Your task to perform on an android device: turn on priority inbox in the gmail app Image 0: 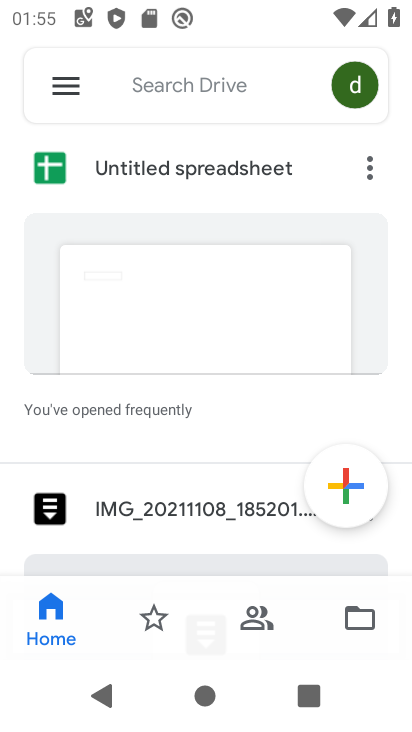
Step 0: press home button
Your task to perform on an android device: turn on priority inbox in the gmail app Image 1: 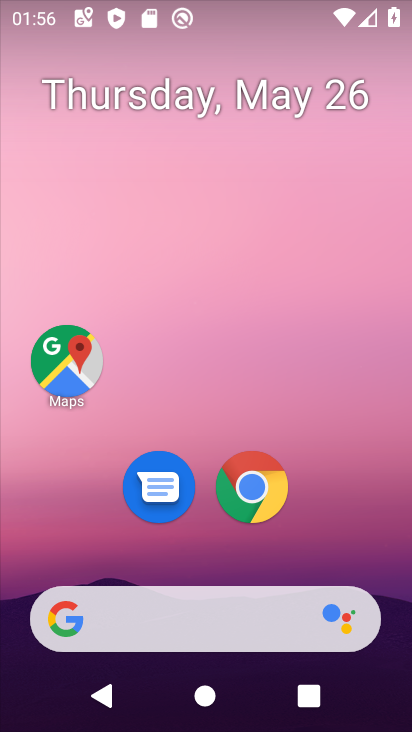
Step 1: drag from (213, 606) to (225, 113)
Your task to perform on an android device: turn on priority inbox in the gmail app Image 2: 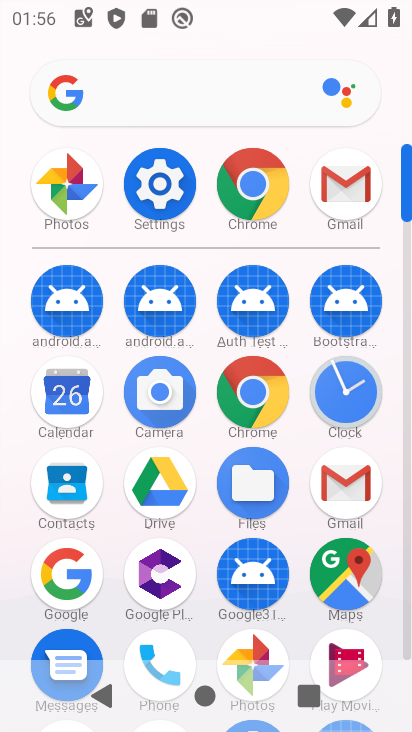
Step 2: click (325, 191)
Your task to perform on an android device: turn on priority inbox in the gmail app Image 3: 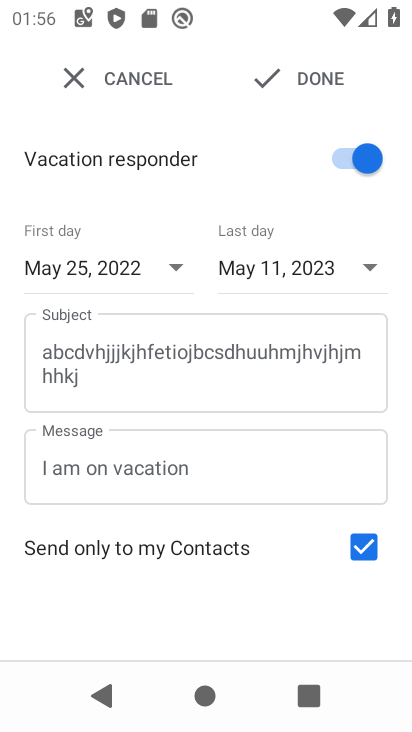
Step 3: click (268, 78)
Your task to perform on an android device: turn on priority inbox in the gmail app Image 4: 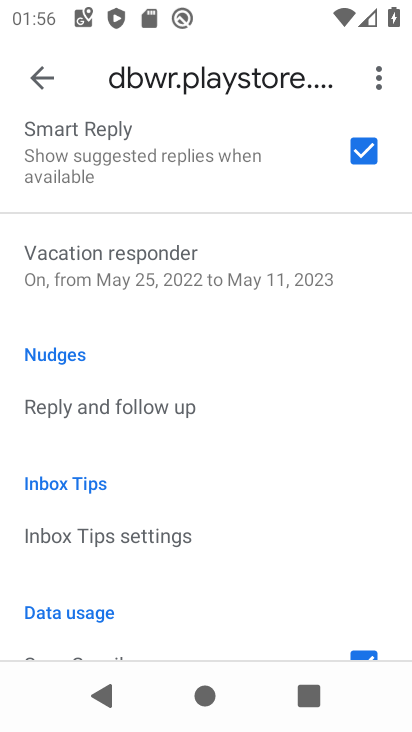
Step 4: drag from (192, 567) to (154, 114)
Your task to perform on an android device: turn on priority inbox in the gmail app Image 5: 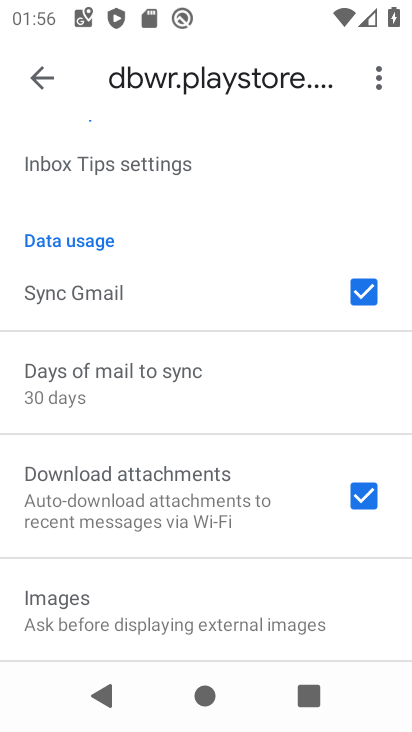
Step 5: drag from (112, 574) to (3, 194)
Your task to perform on an android device: turn on priority inbox in the gmail app Image 6: 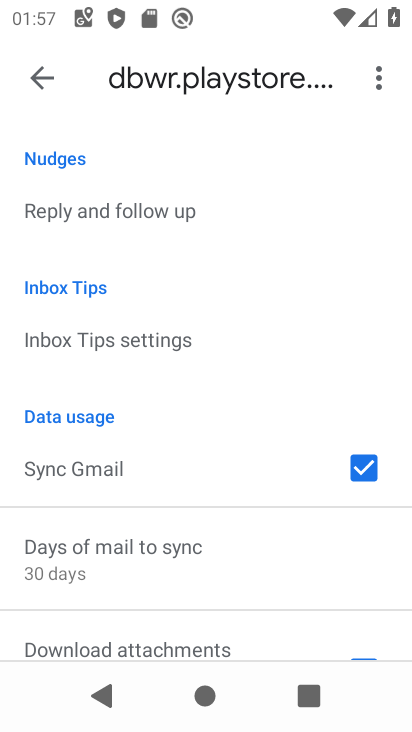
Step 6: drag from (156, 509) to (125, 68)
Your task to perform on an android device: turn on priority inbox in the gmail app Image 7: 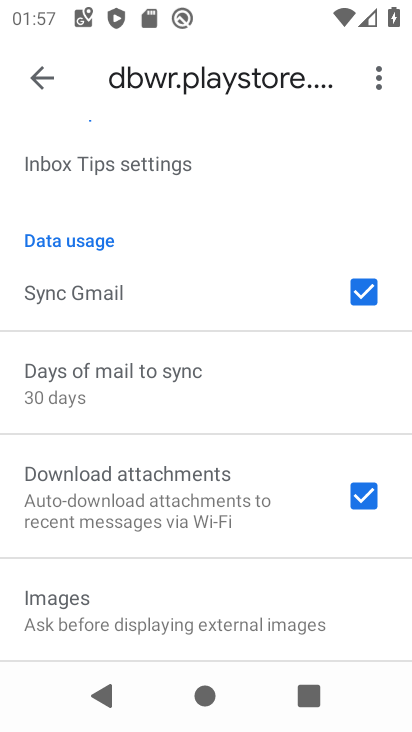
Step 7: drag from (183, 214) to (194, 725)
Your task to perform on an android device: turn on priority inbox in the gmail app Image 8: 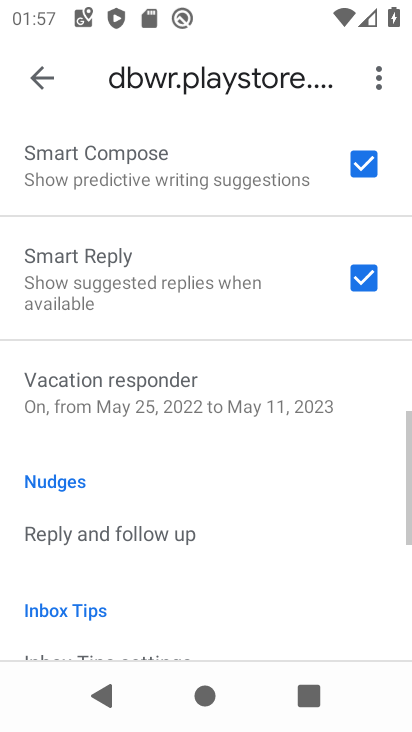
Step 8: drag from (129, 232) to (28, 596)
Your task to perform on an android device: turn on priority inbox in the gmail app Image 9: 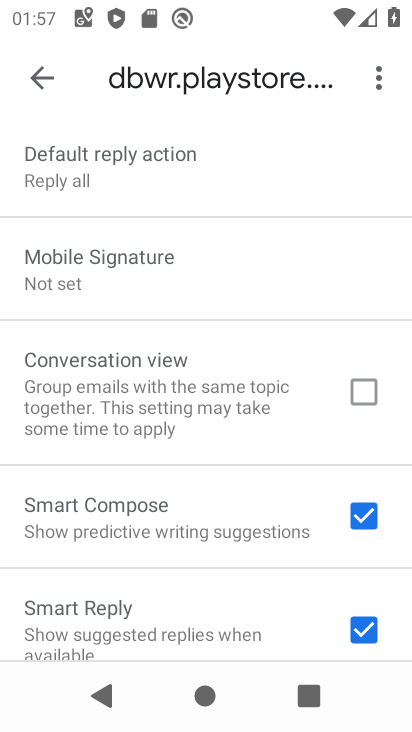
Step 9: drag from (119, 259) to (58, 684)
Your task to perform on an android device: turn on priority inbox in the gmail app Image 10: 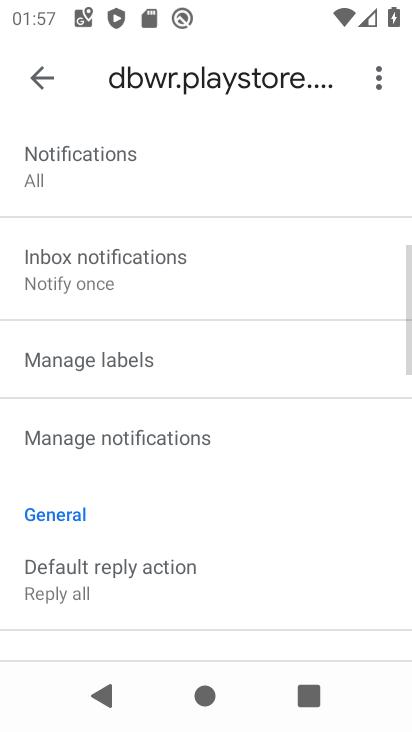
Step 10: drag from (147, 223) to (162, 723)
Your task to perform on an android device: turn on priority inbox in the gmail app Image 11: 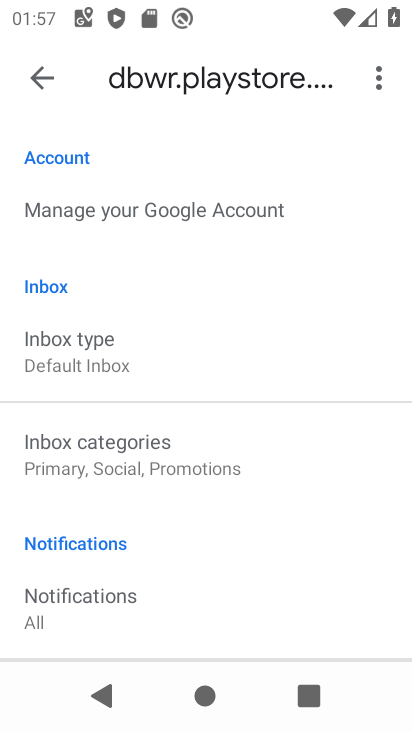
Step 11: click (95, 347)
Your task to perform on an android device: turn on priority inbox in the gmail app Image 12: 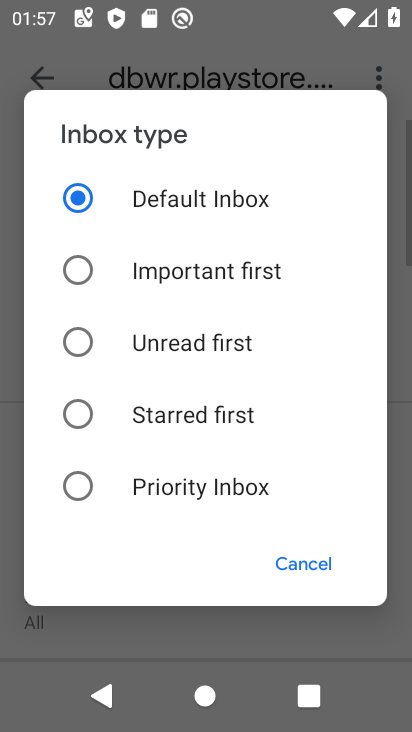
Step 12: click (164, 488)
Your task to perform on an android device: turn on priority inbox in the gmail app Image 13: 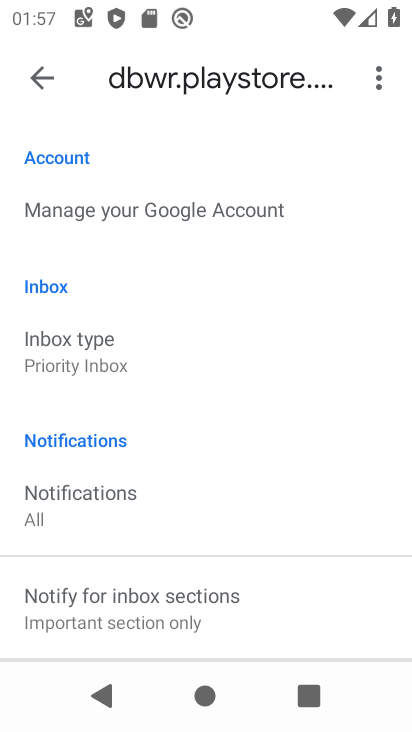
Step 13: task complete